Your task to perform on an android device: turn off location Image 0: 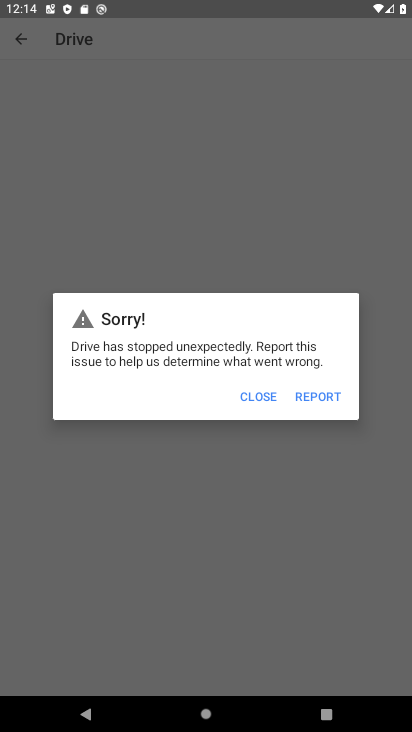
Step 0: press home button
Your task to perform on an android device: turn off location Image 1: 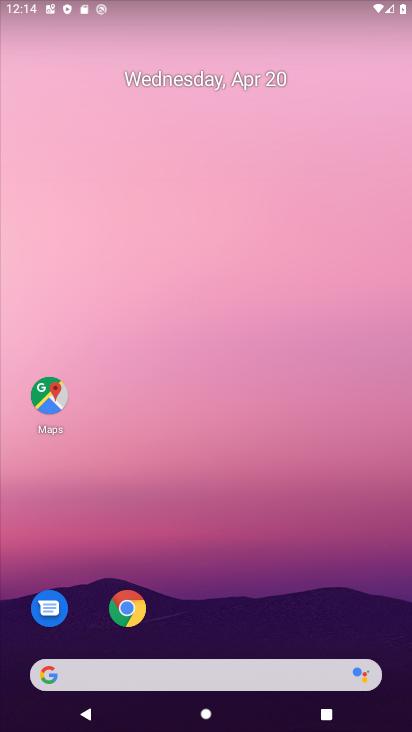
Step 1: drag from (261, 619) to (281, 6)
Your task to perform on an android device: turn off location Image 2: 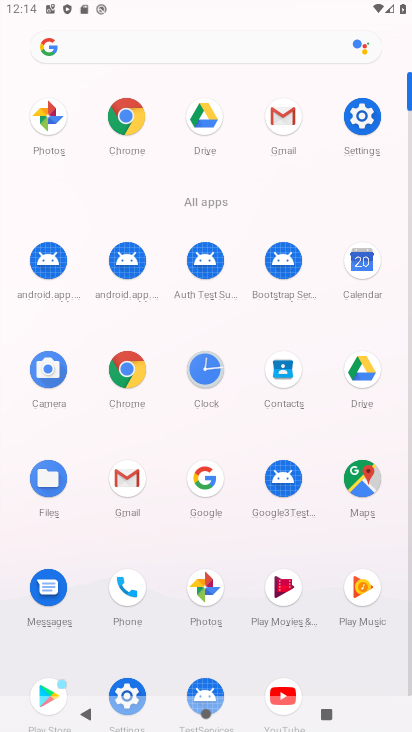
Step 2: click (357, 115)
Your task to perform on an android device: turn off location Image 3: 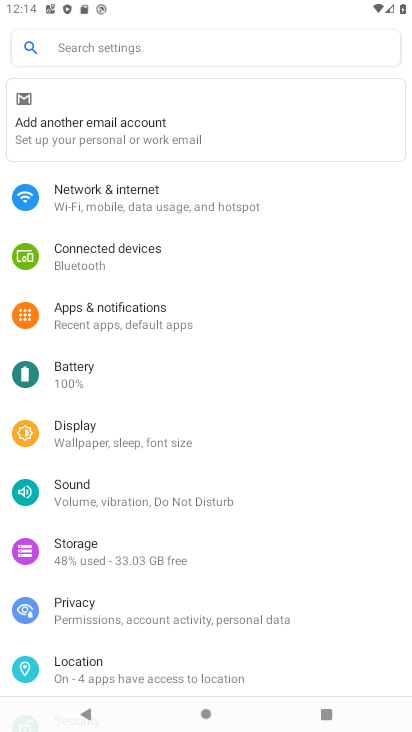
Step 3: drag from (179, 622) to (181, 270)
Your task to perform on an android device: turn off location Image 4: 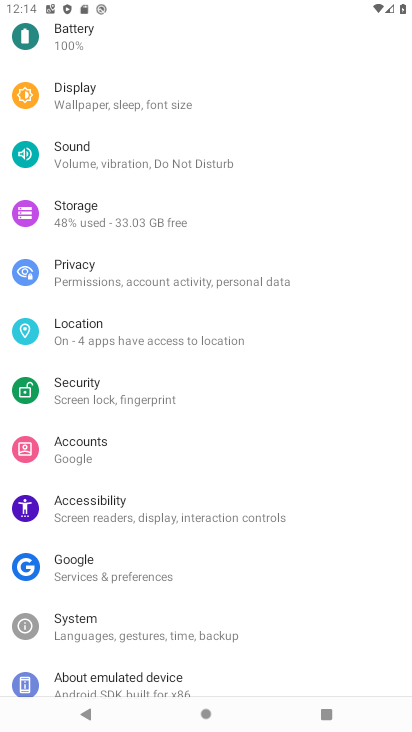
Step 4: click (91, 333)
Your task to perform on an android device: turn off location Image 5: 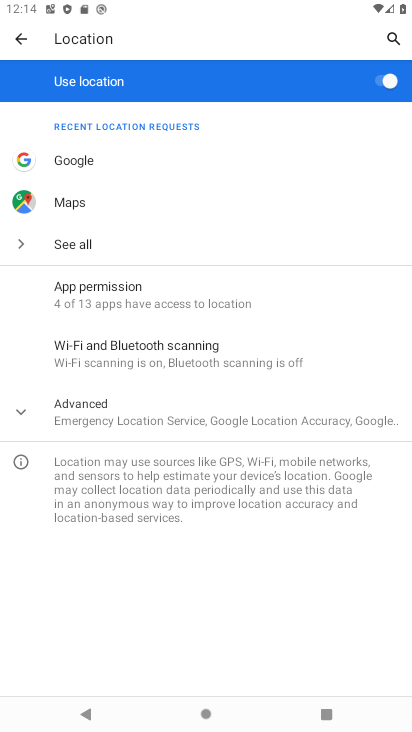
Step 5: click (397, 76)
Your task to perform on an android device: turn off location Image 6: 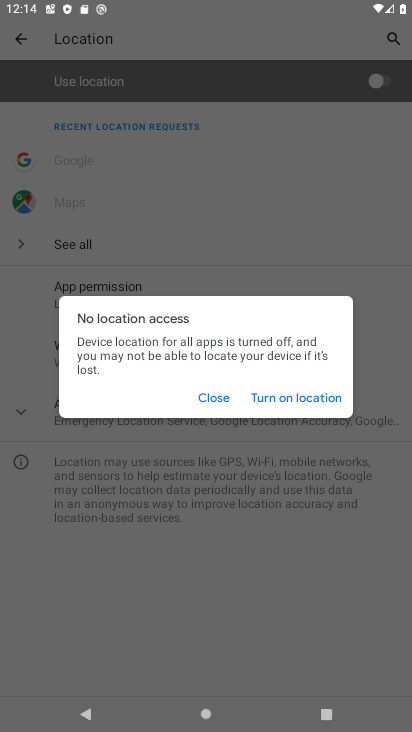
Step 6: task complete